Your task to perform on an android device: empty trash in google photos Image 0: 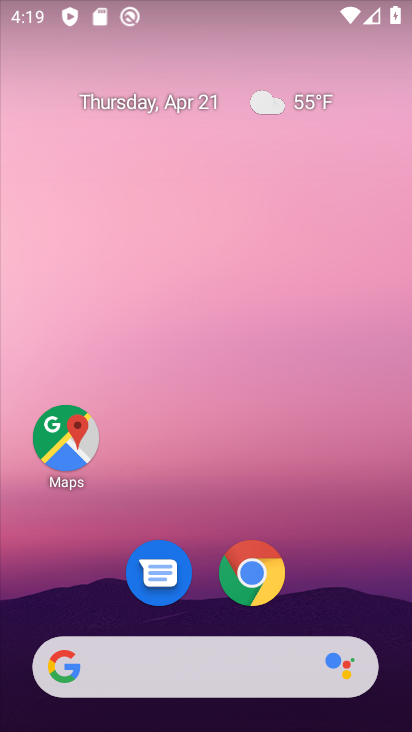
Step 0: drag from (366, 573) to (270, 173)
Your task to perform on an android device: empty trash in google photos Image 1: 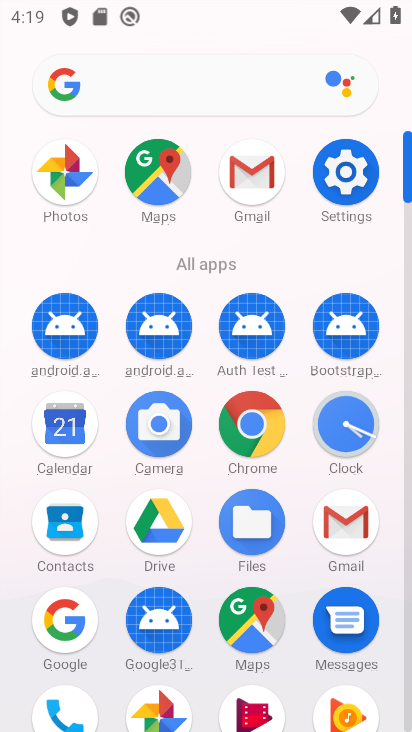
Step 1: click (75, 178)
Your task to perform on an android device: empty trash in google photos Image 2: 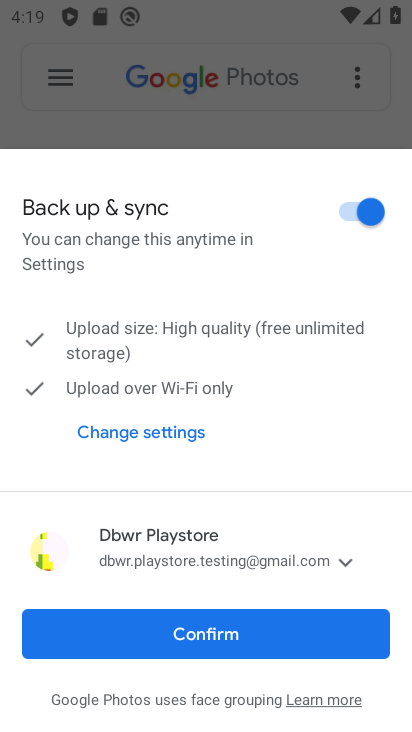
Step 2: click (236, 637)
Your task to perform on an android device: empty trash in google photos Image 3: 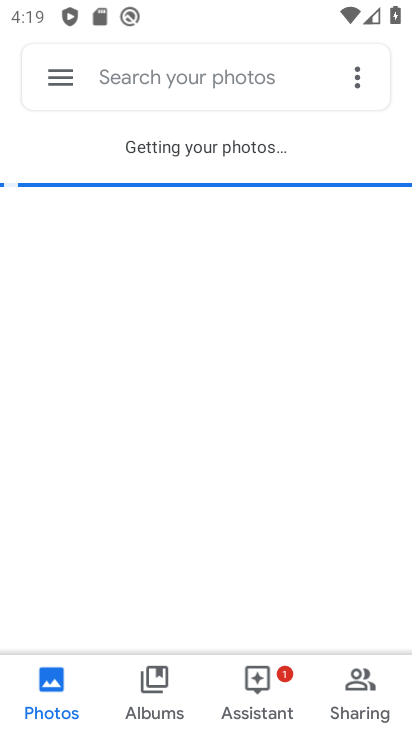
Step 3: click (61, 87)
Your task to perform on an android device: empty trash in google photos Image 4: 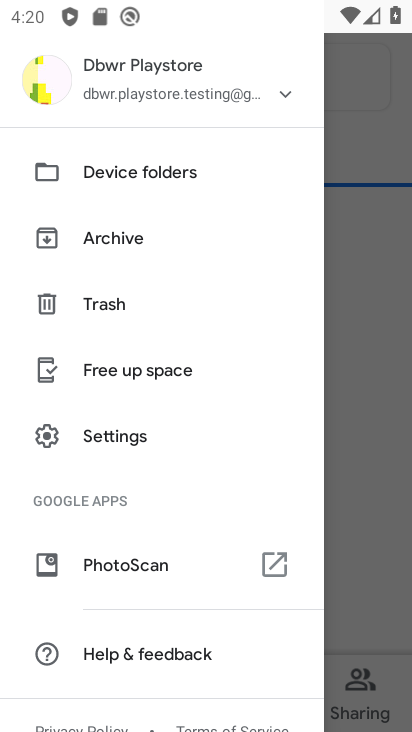
Step 4: click (142, 299)
Your task to perform on an android device: empty trash in google photos Image 5: 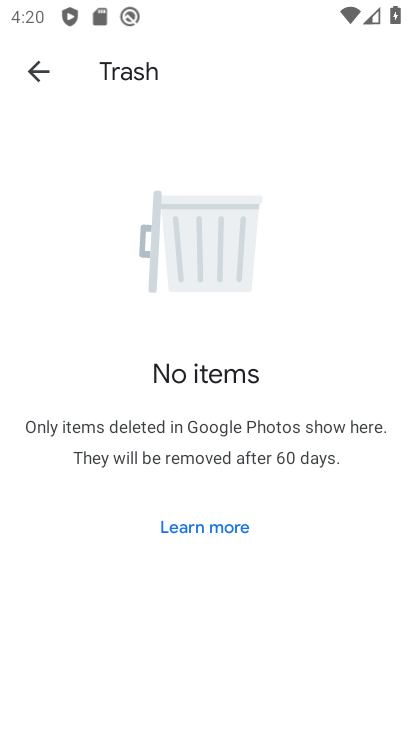
Step 5: task complete